Your task to perform on an android device: What is the news today? Image 0: 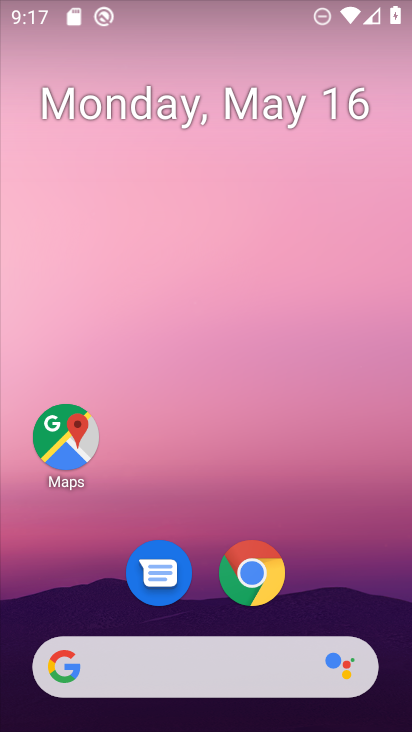
Step 0: click (254, 568)
Your task to perform on an android device: What is the news today? Image 1: 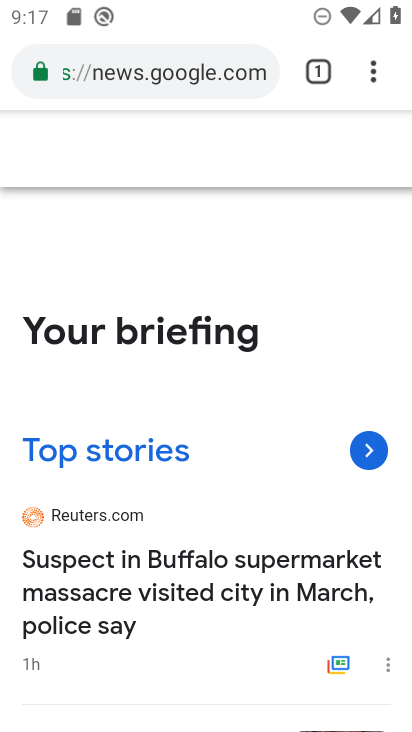
Step 1: task complete